Your task to perform on an android device: turn on improve location accuracy Image 0: 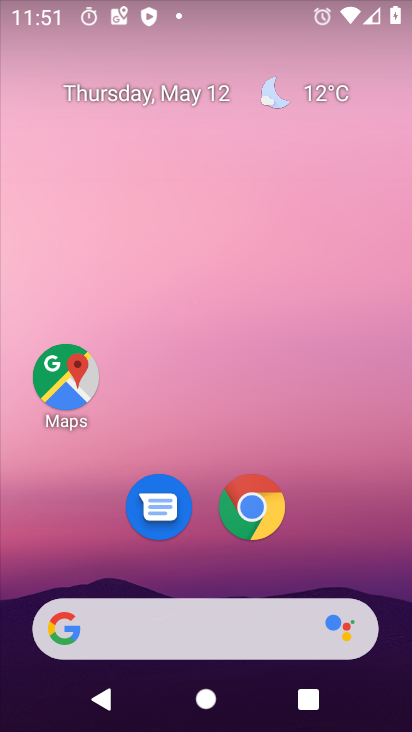
Step 0: drag from (203, 547) to (262, 74)
Your task to perform on an android device: turn on improve location accuracy Image 1: 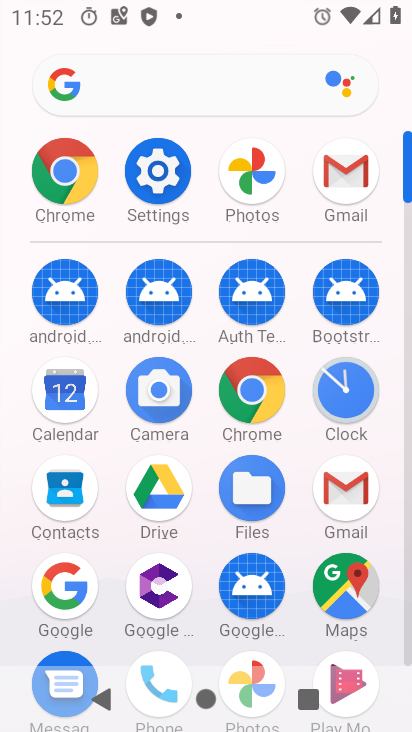
Step 1: click (151, 183)
Your task to perform on an android device: turn on improve location accuracy Image 2: 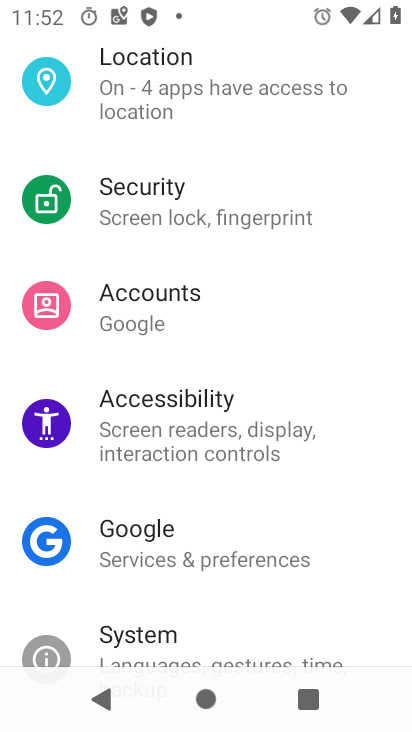
Step 2: click (177, 121)
Your task to perform on an android device: turn on improve location accuracy Image 3: 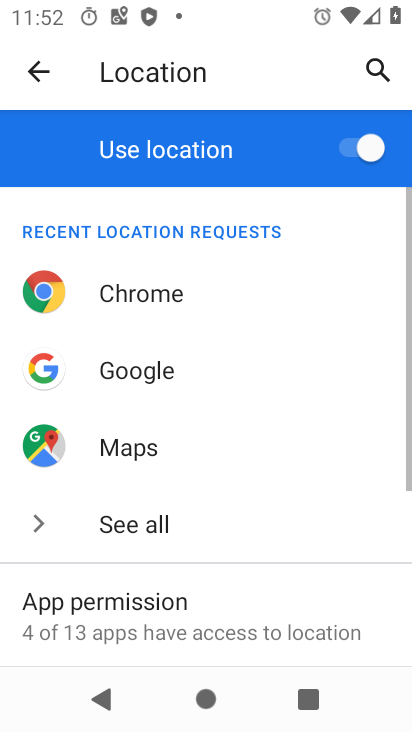
Step 3: drag from (169, 544) to (211, 201)
Your task to perform on an android device: turn on improve location accuracy Image 4: 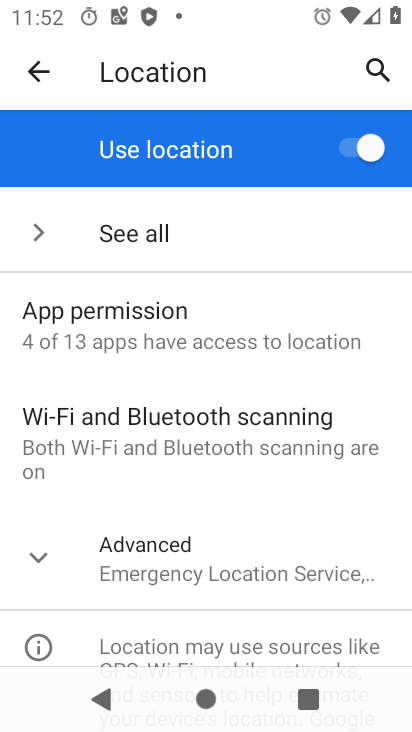
Step 4: drag from (170, 556) to (196, 408)
Your task to perform on an android device: turn on improve location accuracy Image 5: 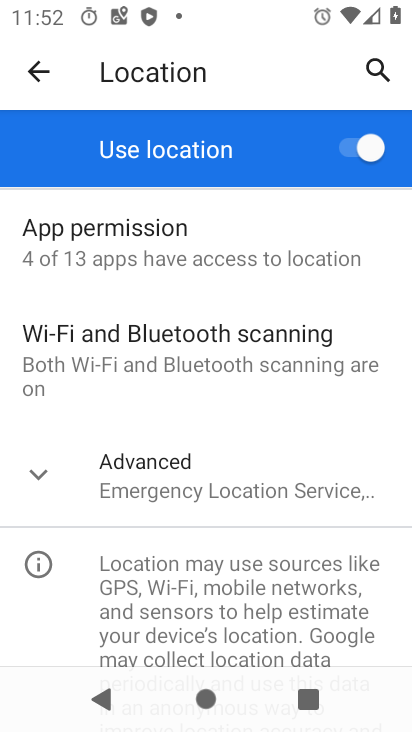
Step 5: click (47, 471)
Your task to perform on an android device: turn on improve location accuracy Image 6: 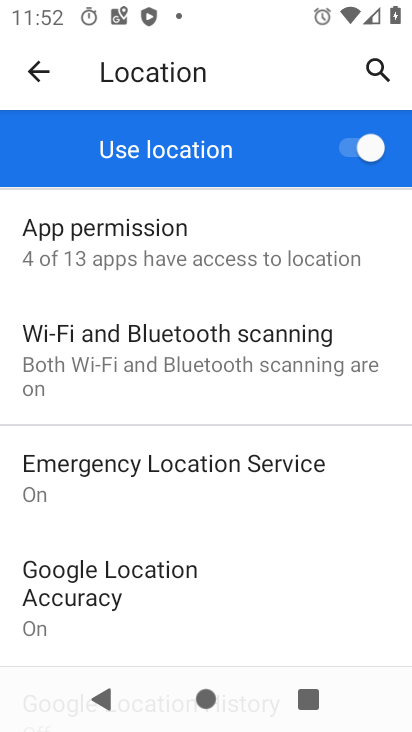
Step 6: drag from (209, 519) to (262, 341)
Your task to perform on an android device: turn on improve location accuracy Image 7: 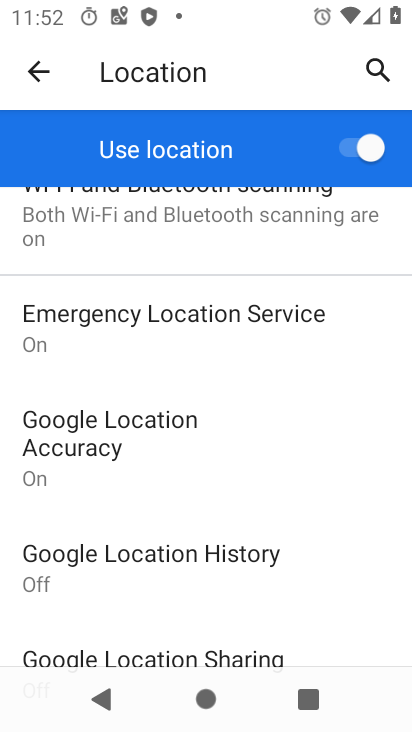
Step 7: click (182, 459)
Your task to perform on an android device: turn on improve location accuracy Image 8: 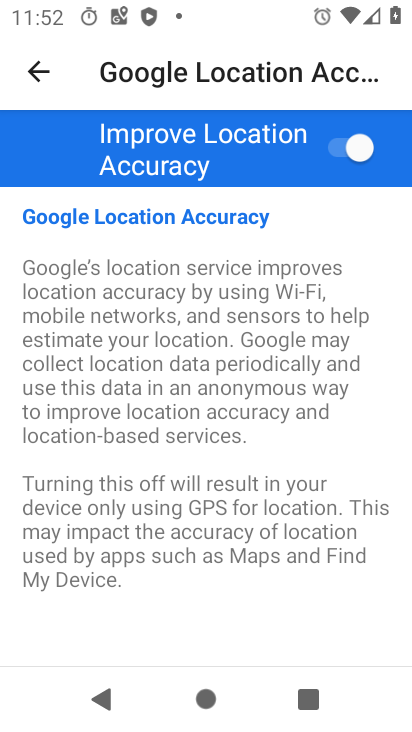
Step 8: task complete